Your task to perform on an android device: change the clock display to analog Image 0: 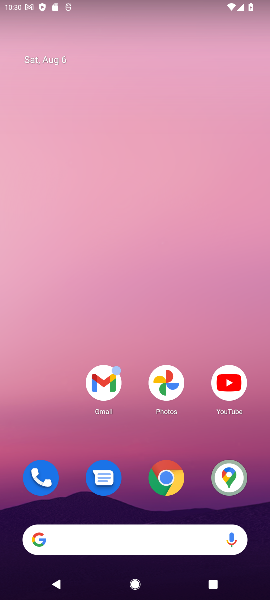
Step 0: drag from (140, 377) to (165, 9)
Your task to perform on an android device: change the clock display to analog Image 1: 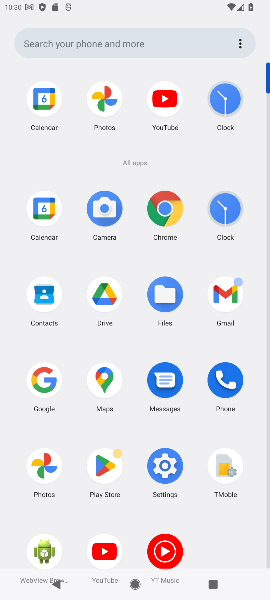
Step 1: click (221, 210)
Your task to perform on an android device: change the clock display to analog Image 2: 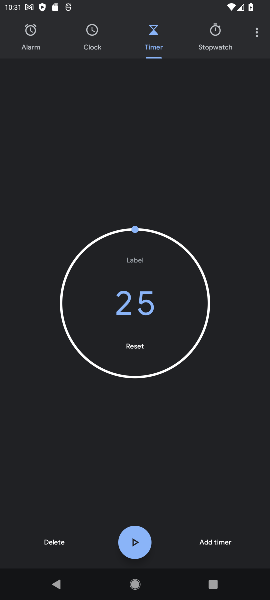
Step 2: click (257, 35)
Your task to perform on an android device: change the clock display to analog Image 3: 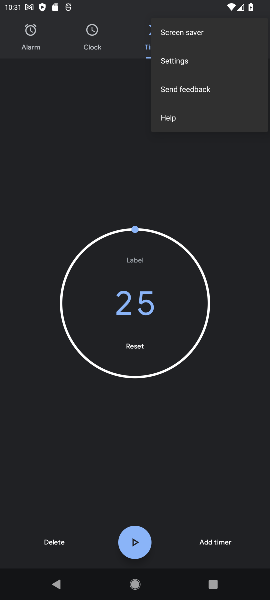
Step 3: click (188, 62)
Your task to perform on an android device: change the clock display to analog Image 4: 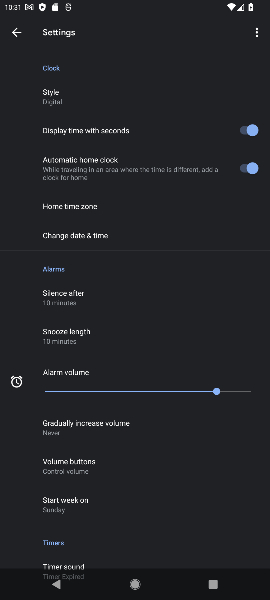
Step 4: click (60, 97)
Your task to perform on an android device: change the clock display to analog Image 5: 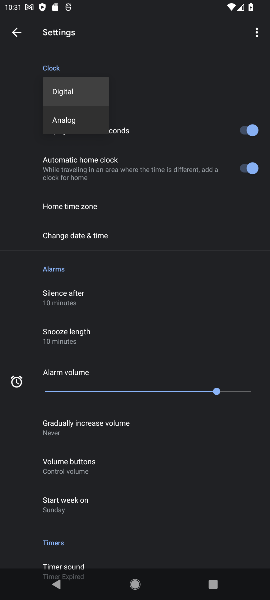
Step 5: click (60, 122)
Your task to perform on an android device: change the clock display to analog Image 6: 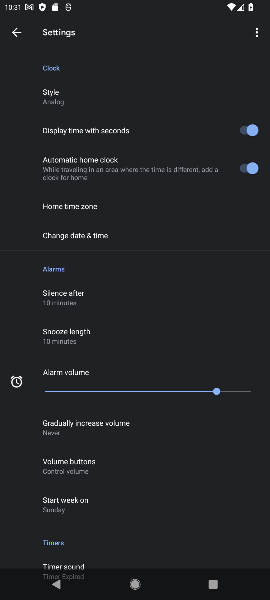
Step 6: task complete